Your task to perform on an android device: Open calendar and show me the third week of next month Image 0: 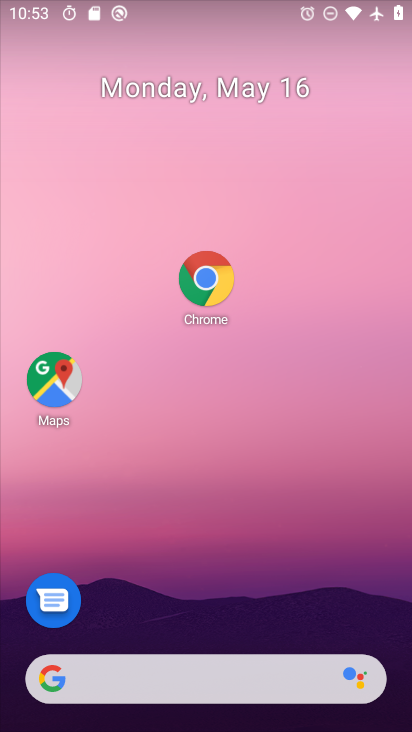
Step 0: drag from (176, 657) to (322, 287)
Your task to perform on an android device: Open calendar and show me the third week of next month Image 1: 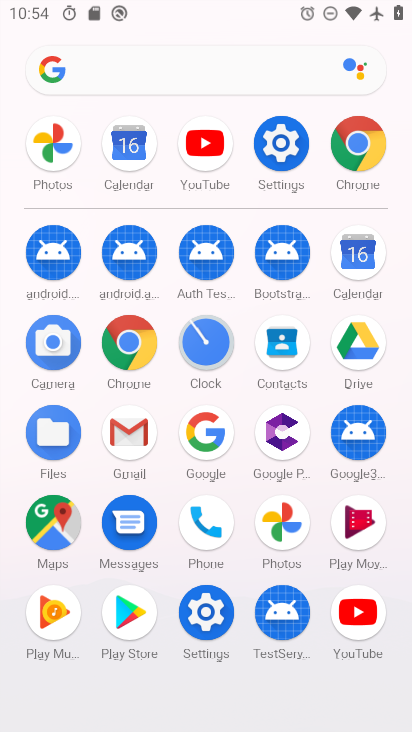
Step 1: click (350, 264)
Your task to perform on an android device: Open calendar and show me the third week of next month Image 2: 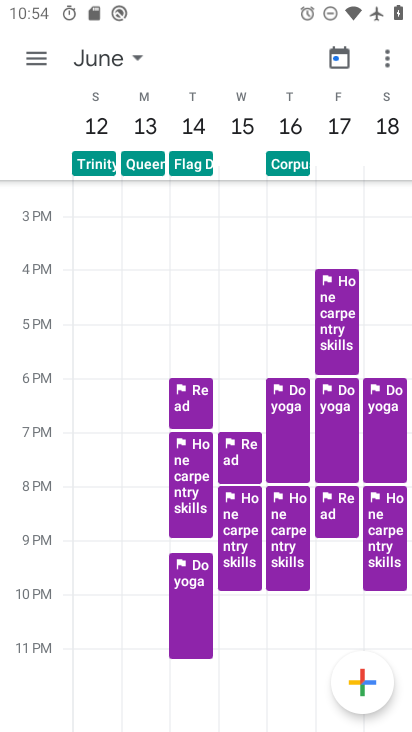
Step 2: click (82, 57)
Your task to perform on an android device: Open calendar and show me the third week of next month Image 3: 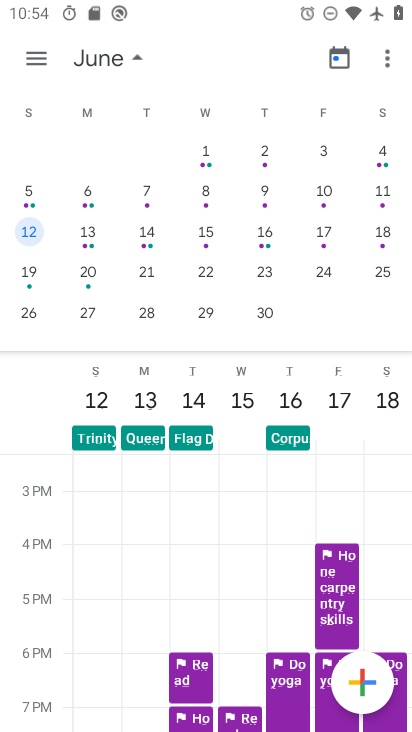
Step 3: click (32, 64)
Your task to perform on an android device: Open calendar and show me the third week of next month Image 4: 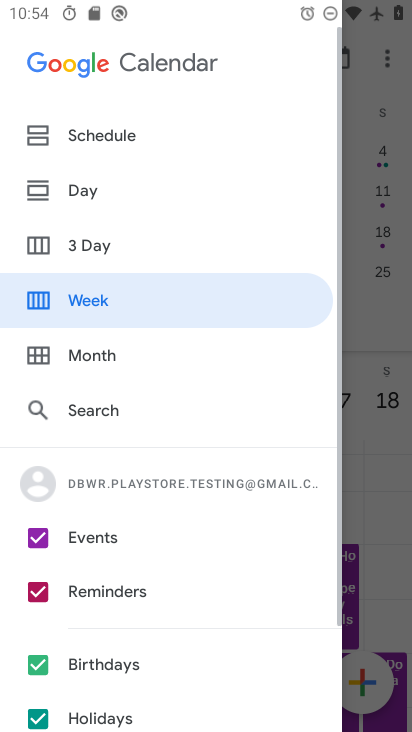
Step 4: click (59, 305)
Your task to perform on an android device: Open calendar and show me the third week of next month Image 5: 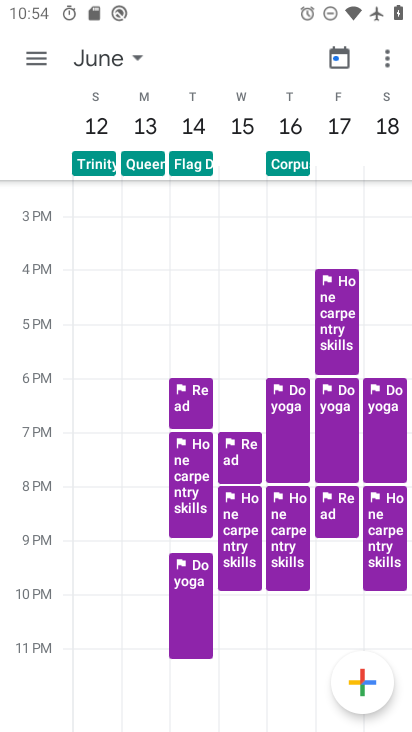
Step 5: task complete